Your task to perform on an android device: turn off notifications in google photos Image 0: 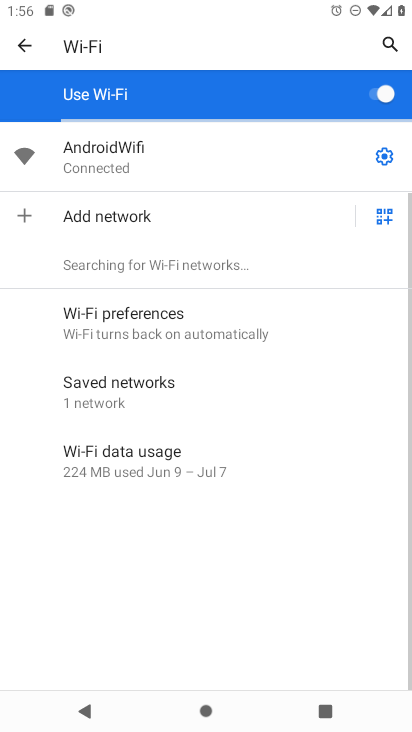
Step 0: press home button
Your task to perform on an android device: turn off notifications in google photos Image 1: 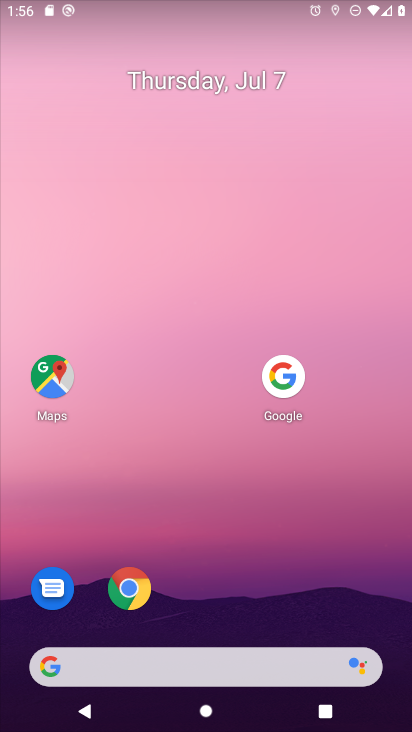
Step 1: drag from (157, 663) to (278, 74)
Your task to perform on an android device: turn off notifications in google photos Image 2: 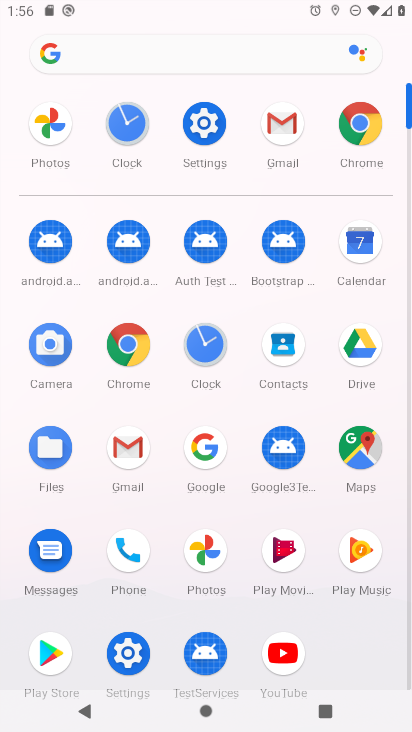
Step 2: click (209, 553)
Your task to perform on an android device: turn off notifications in google photos Image 3: 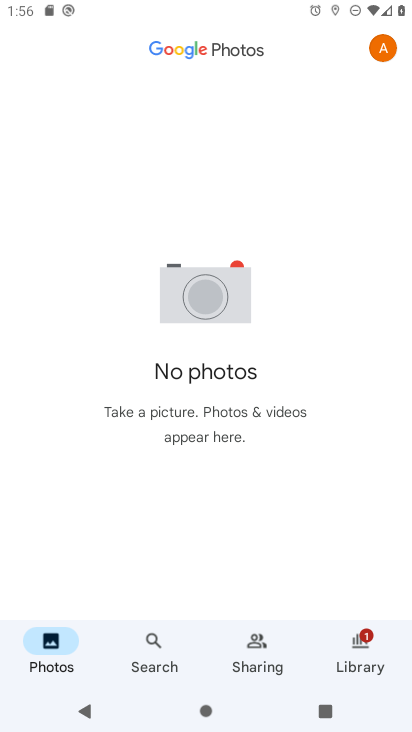
Step 3: click (386, 47)
Your task to perform on an android device: turn off notifications in google photos Image 4: 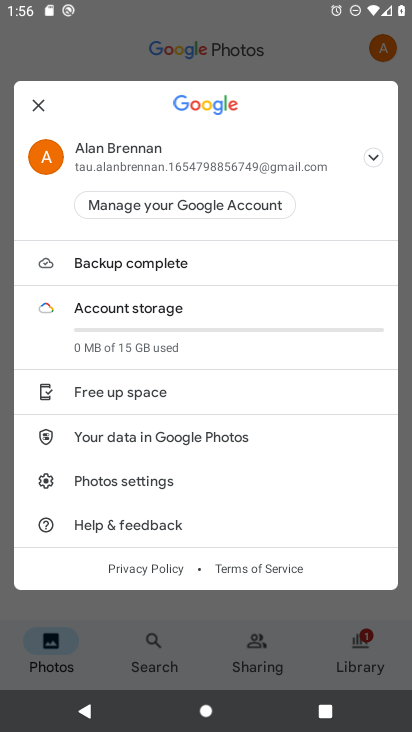
Step 4: click (136, 483)
Your task to perform on an android device: turn off notifications in google photos Image 5: 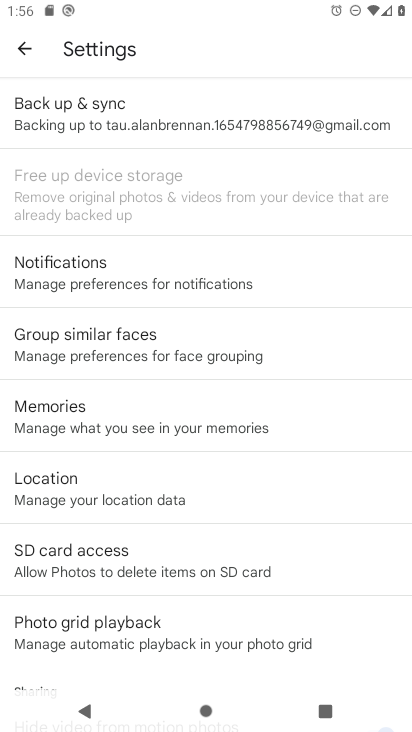
Step 5: click (98, 283)
Your task to perform on an android device: turn off notifications in google photos Image 6: 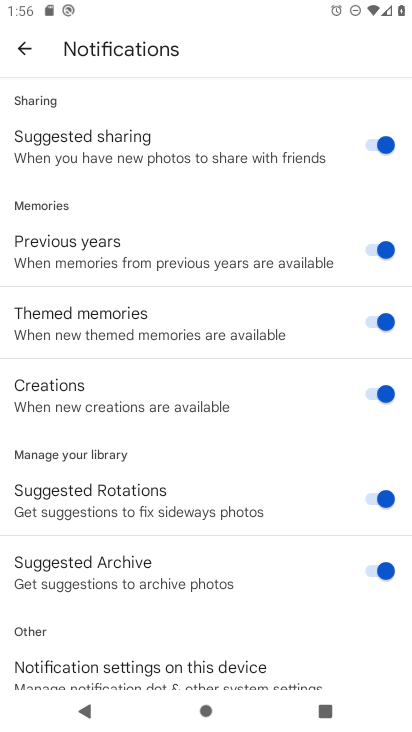
Step 6: drag from (156, 602) to (290, 133)
Your task to perform on an android device: turn off notifications in google photos Image 7: 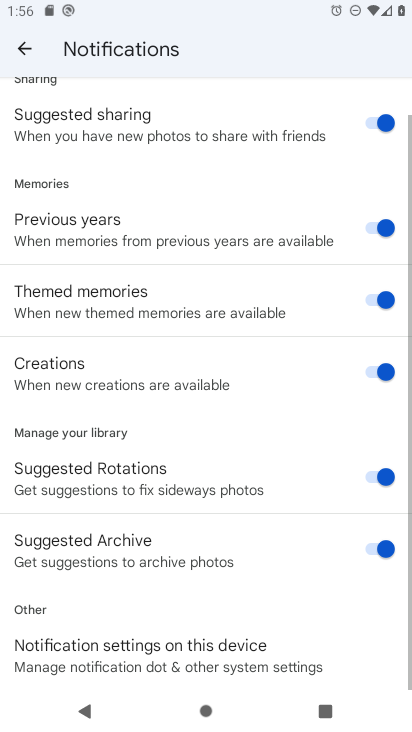
Step 7: click (164, 659)
Your task to perform on an android device: turn off notifications in google photos Image 8: 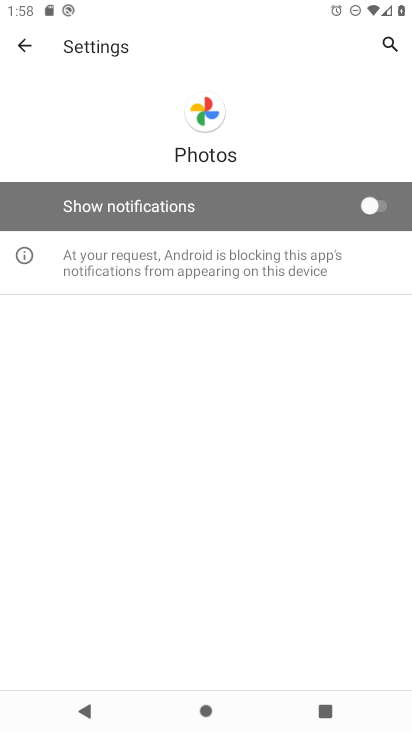
Step 8: task complete